Your task to perform on an android device: turn off javascript in the chrome app Image 0: 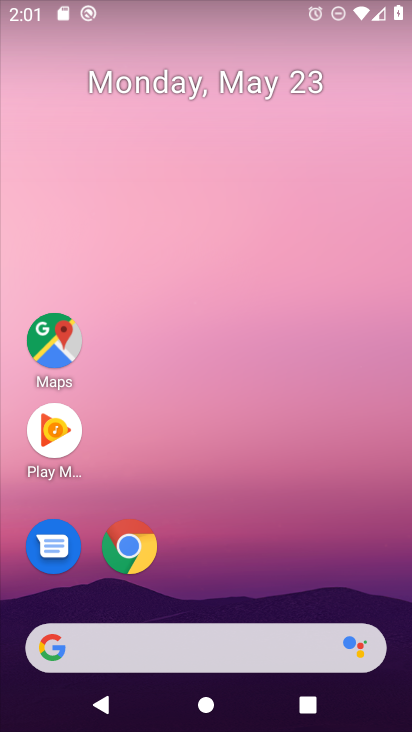
Step 0: drag from (248, 625) to (312, 121)
Your task to perform on an android device: turn off javascript in the chrome app Image 1: 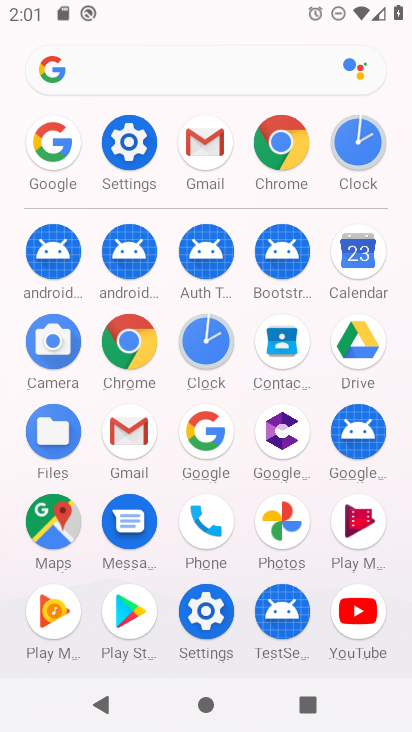
Step 1: click (292, 139)
Your task to perform on an android device: turn off javascript in the chrome app Image 2: 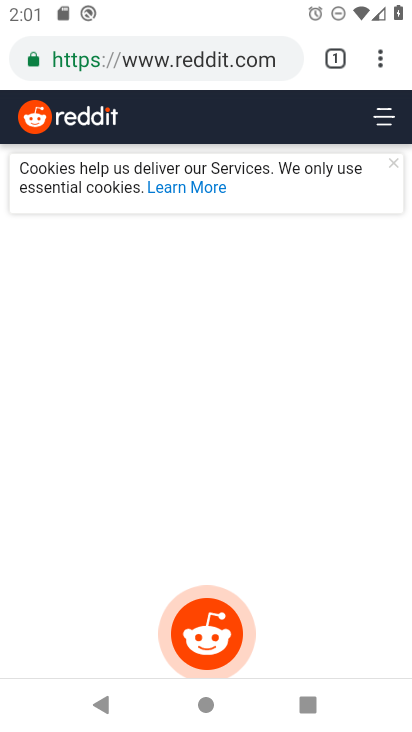
Step 2: click (380, 62)
Your task to perform on an android device: turn off javascript in the chrome app Image 3: 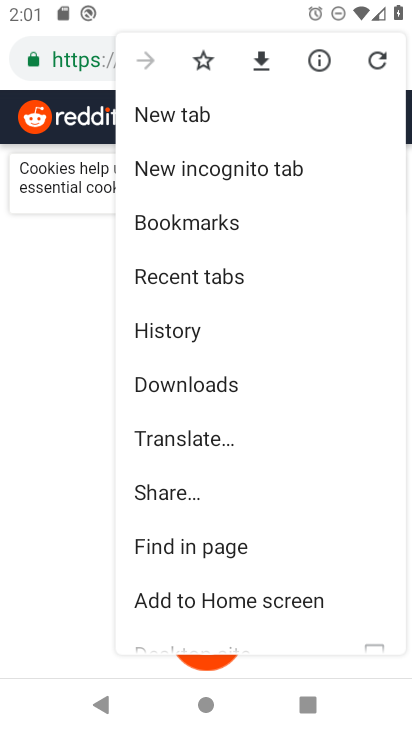
Step 3: drag from (231, 565) to (304, 195)
Your task to perform on an android device: turn off javascript in the chrome app Image 4: 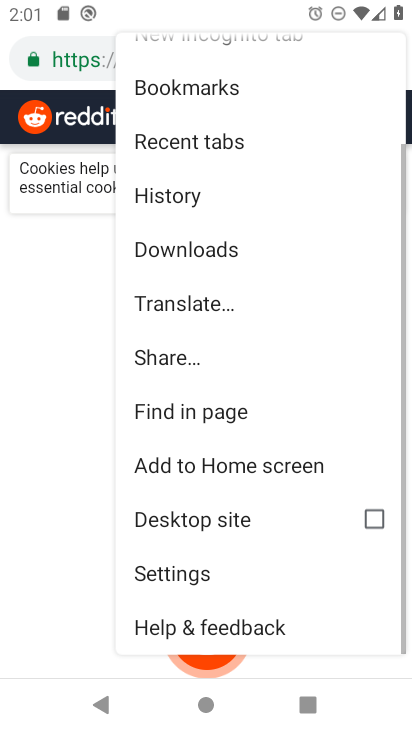
Step 4: click (195, 577)
Your task to perform on an android device: turn off javascript in the chrome app Image 5: 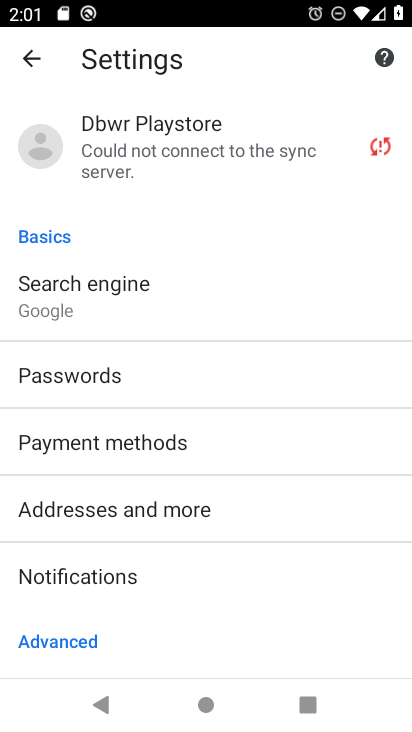
Step 5: drag from (199, 568) to (282, 210)
Your task to perform on an android device: turn off javascript in the chrome app Image 6: 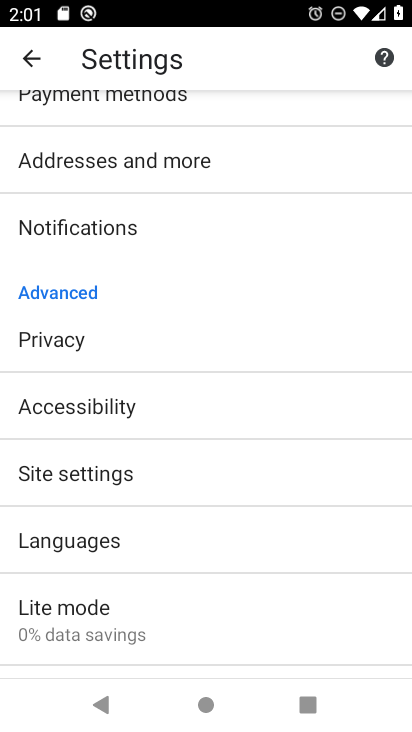
Step 6: click (183, 487)
Your task to perform on an android device: turn off javascript in the chrome app Image 7: 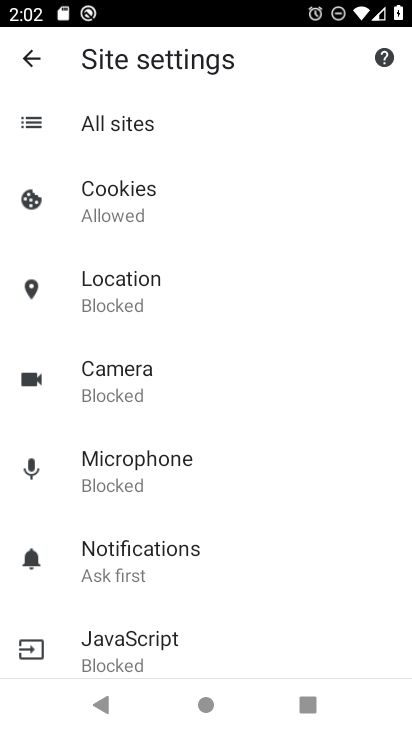
Step 7: click (183, 645)
Your task to perform on an android device: turn off javascript in the chrome app Image 8: 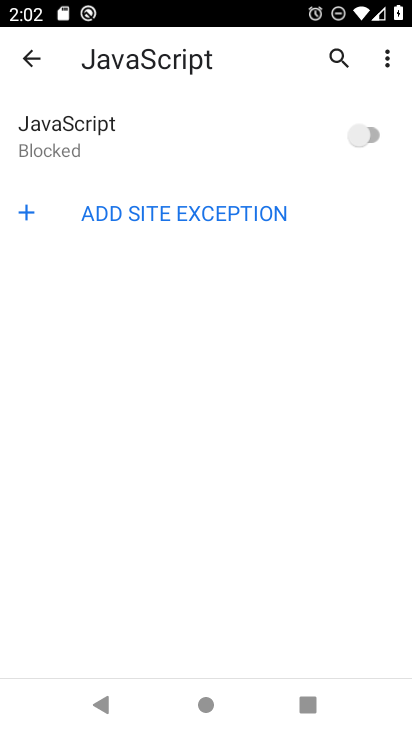
Step 8: task complete